Your task to perform on an android device: turn on airplane mode Image 0: 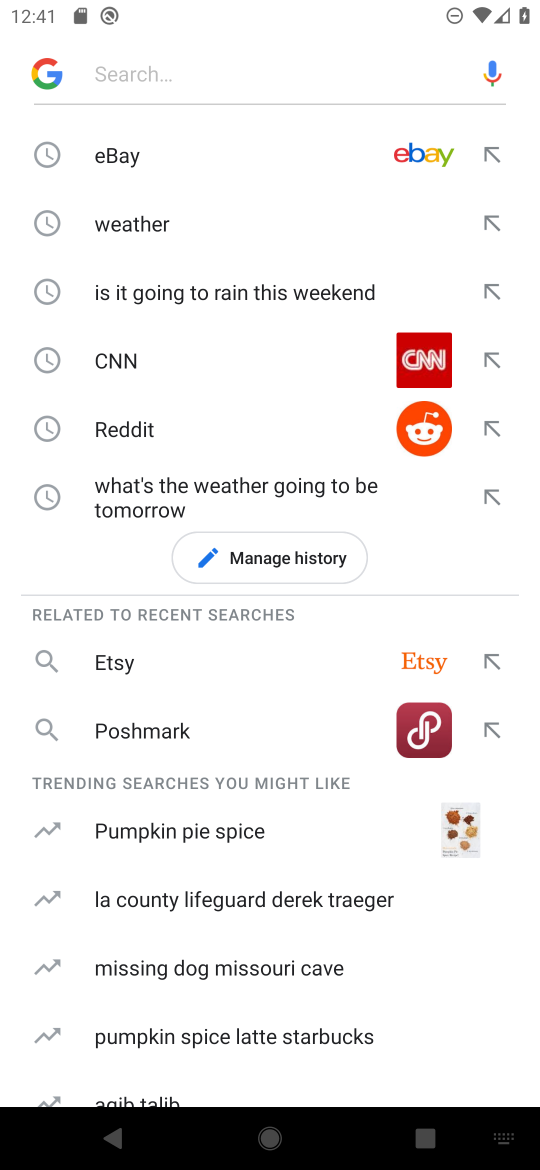
Step 0: drag from (275, 6) to (227, 855)
Your task to perform on an android device: turn on airplane mode Image 1: 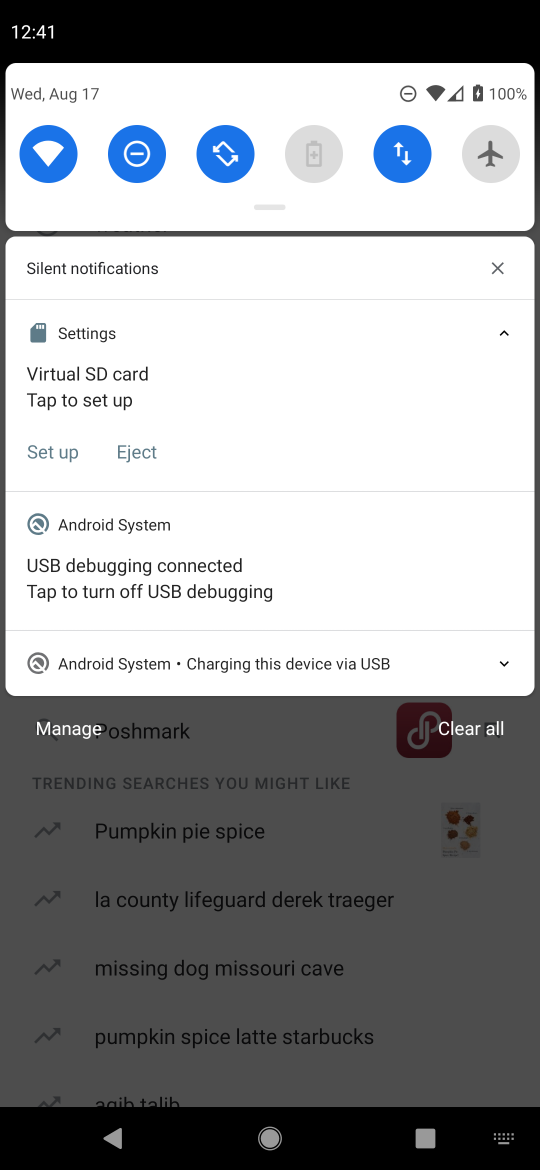
Step 1: click (483, 157)
Your task to perform on an android device: turn on airplane mode Image 2: 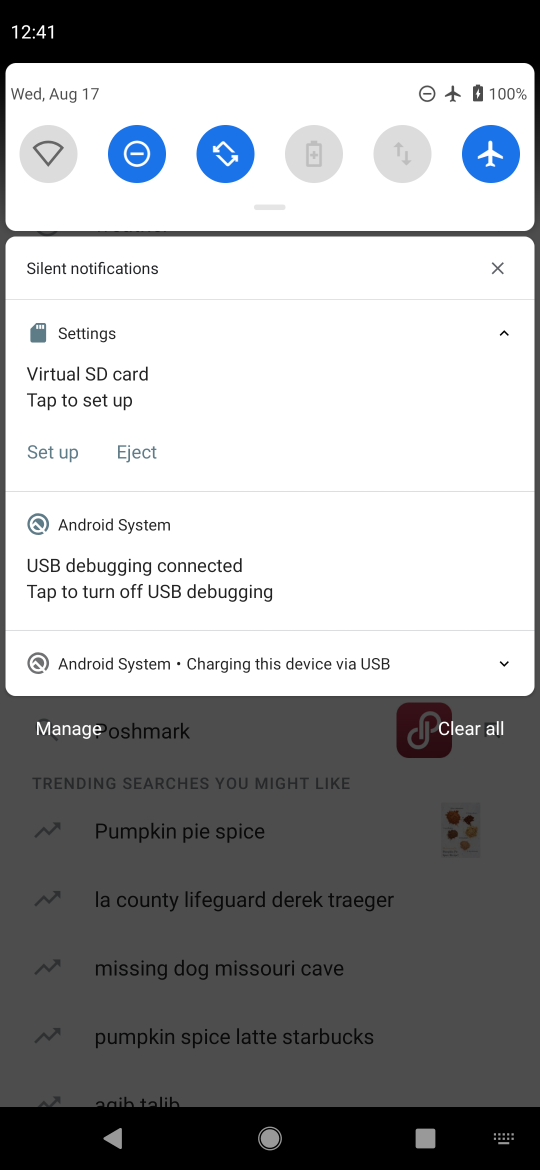
Step 2: task complete